Your task to perform on an android device: open device folders in google photos Image 0: 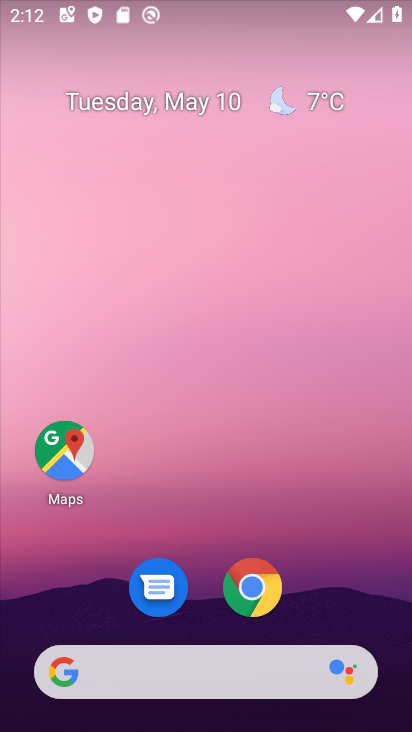
Step 0: drag from (328, 565) to (284, 47)
Your task to perform on an android device: open device folders in google photos Image 1: 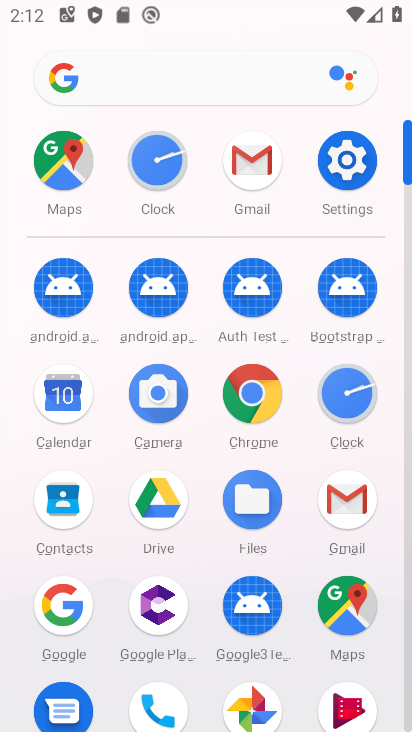
Step 1: click (250, 702)
Your task to perform on an android device: open device folders in google photos Image 2: 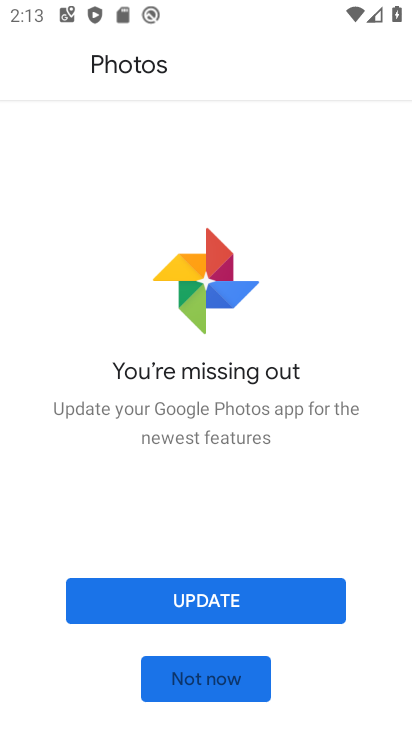
Step 2: click (247, 696)
Your task to perform on an android device: open device folders in google photos Image 3: 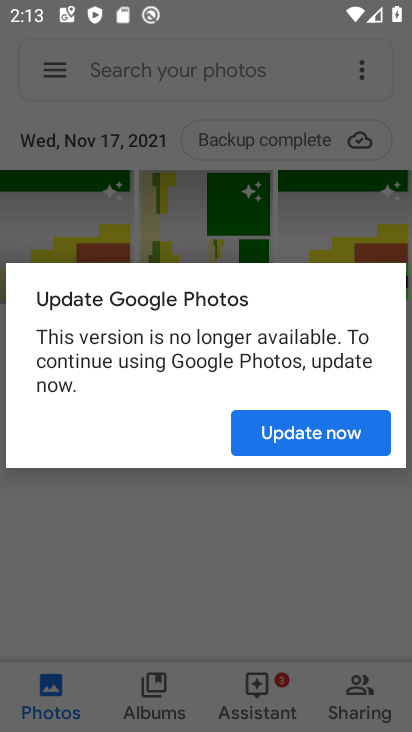
Step 3: click (282, 447)
Your task to perform on an android device: open device folders in google photos Image 4: 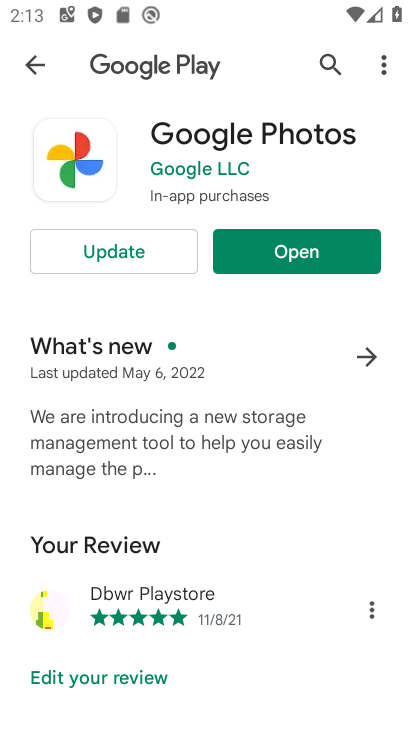
Step 4: click (262, 251)
Your task to perform on an android device: open device folders in google photos Image 5: 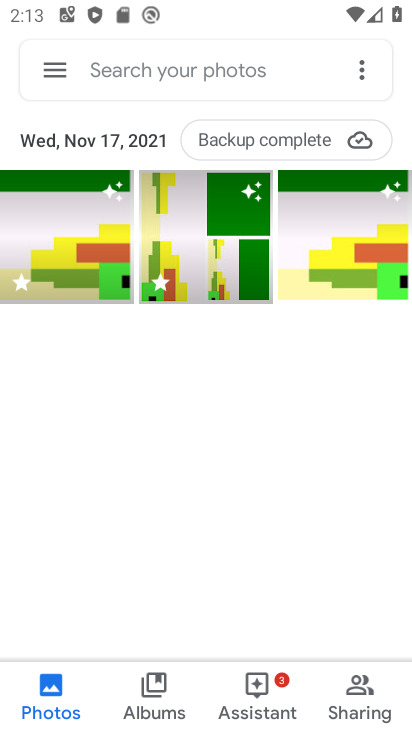
Step 5: click (50, 74)
Your task to perform on an android device: open device folders in google photos Image 6: 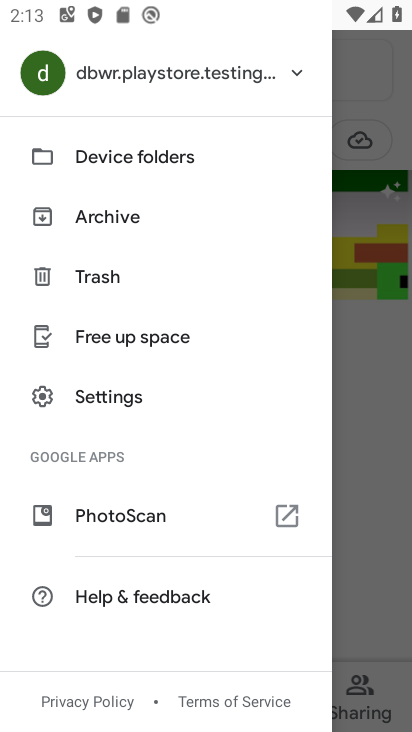
Step 6: click (115, 168)
Your task to perform on an android device: open device folders in google photos Image 7: 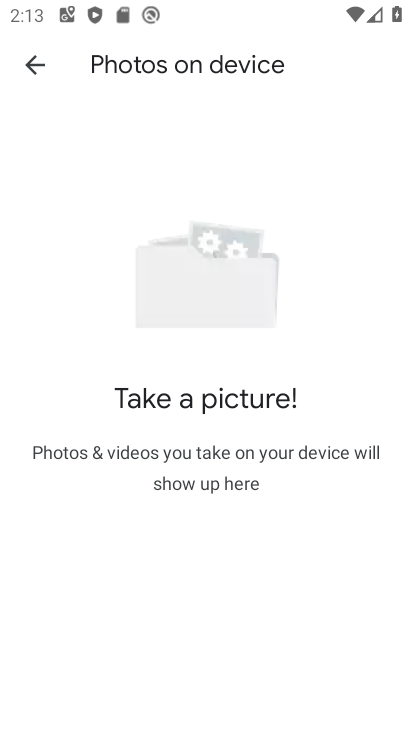
Step 7: task complete